Your task to perform on an android device: Go to privacy settings Image 0: 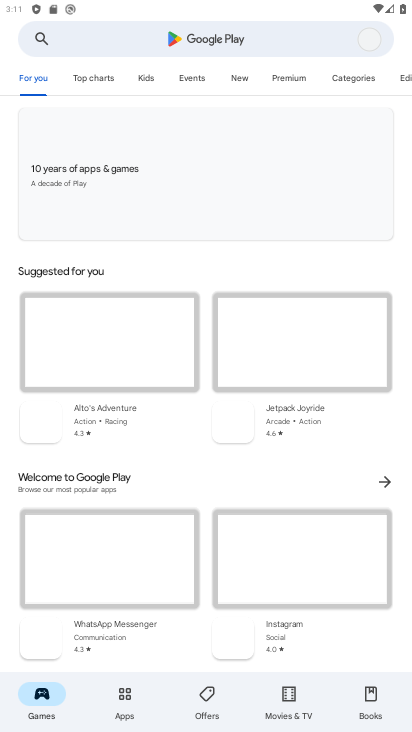
Step 0: press home button
Your task to perform on an android device: Go to privacy settings Image 1: 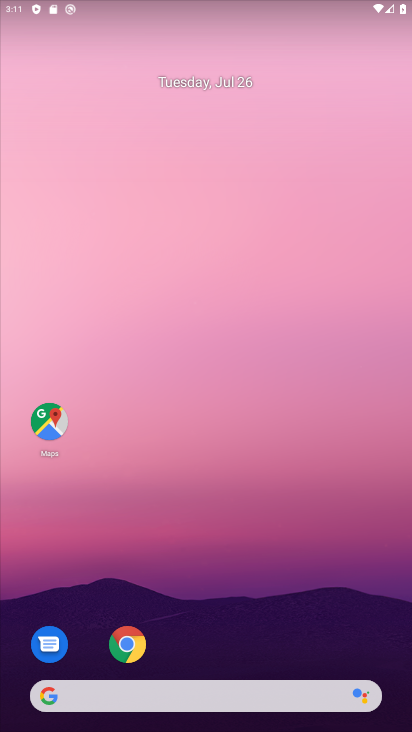
Step 1: drag from (279, 644) to (209, 182)
Your task to perform on an android device: Go to privacy settings Image 2: 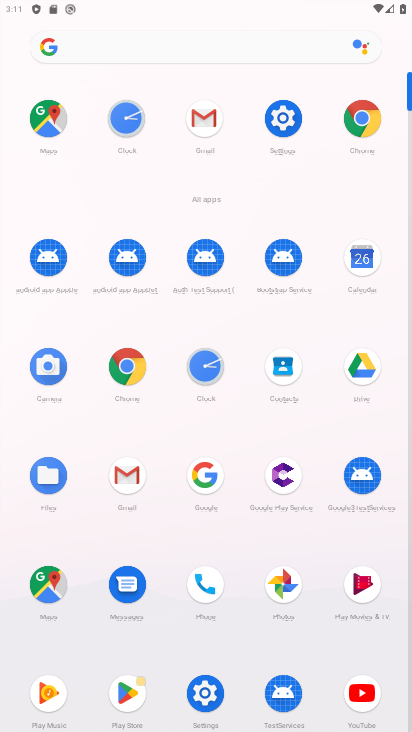
Step 2: click (274, 120)
Your task to perform on an android device: Go to privacy settings Image 3: 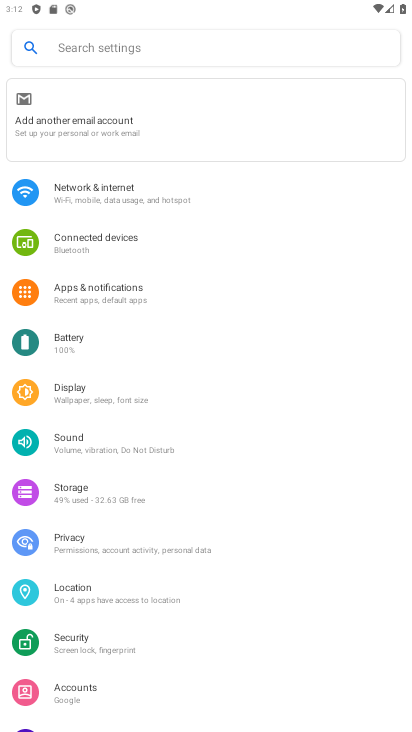
Step 3: click (106, 540)
Your task to perform on an android device: Go to privacy settings Image 4: 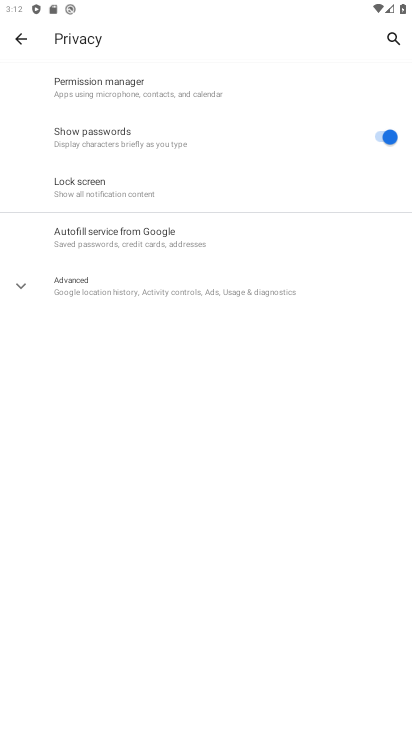
Step 4: task complete